Your task to perform on an android device: toggle wifi Image 0: 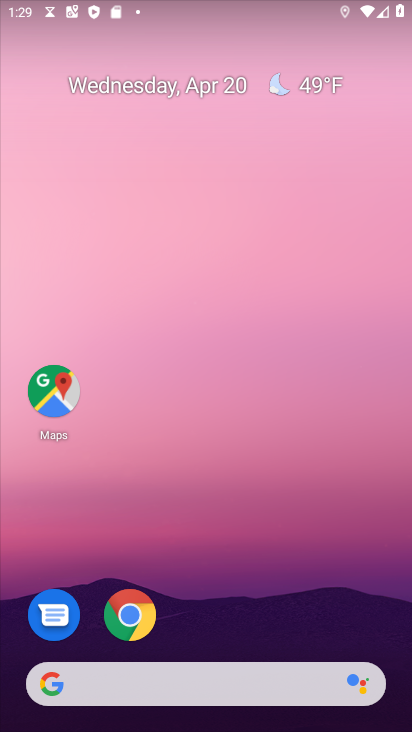
Step 0: drag from (369, 40) to (345, 390)
Your task to perform on an android device: toggle wifi Image 1: 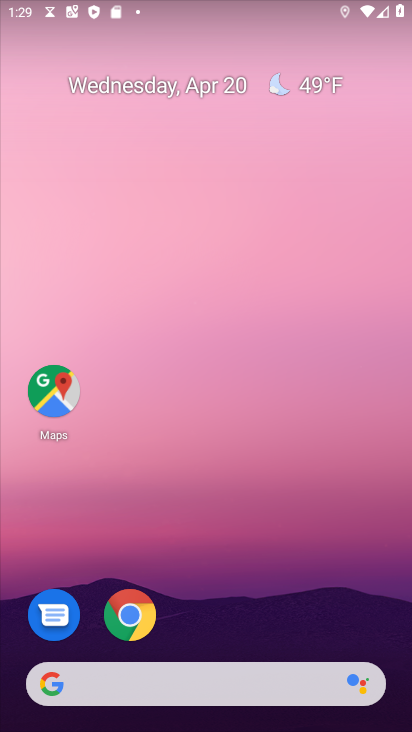
Step 1: click (187, 46)
Your task to perform on an android device: toggle wifi Image 2: 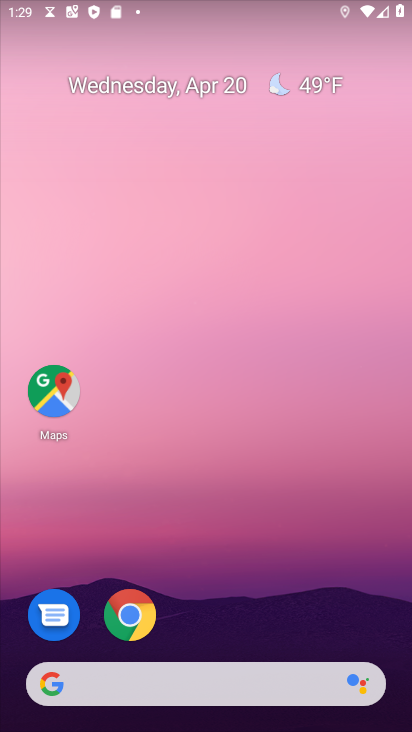
Step 2: drag from (409, 202) to (315, 309)
Your task to perform on an android device: toggle wifi Image 3: 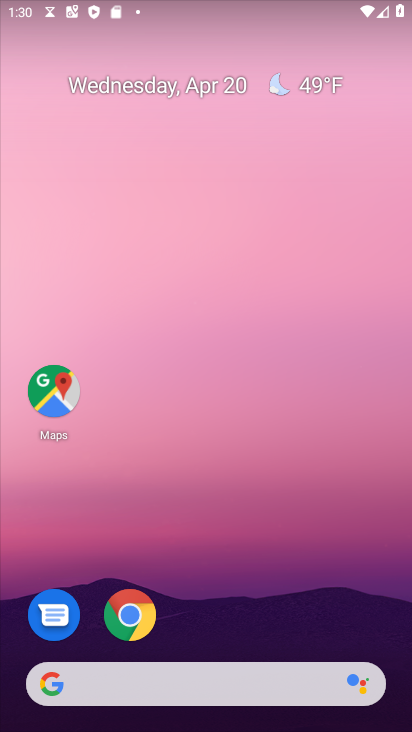
Step 3: drag from (203, 8) to (200, 287)
Your task to perform on an android device: toggle wifi Image 4: 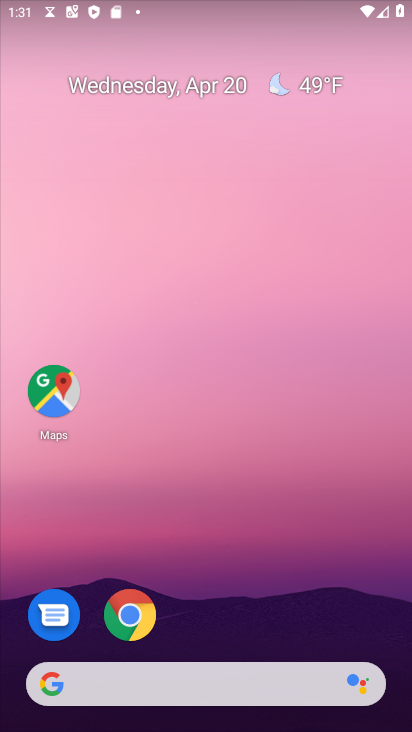
Step 4: drag from (48, 3) to (51, 335)
Your task to perform on an android device: toggle wifi Image 5: 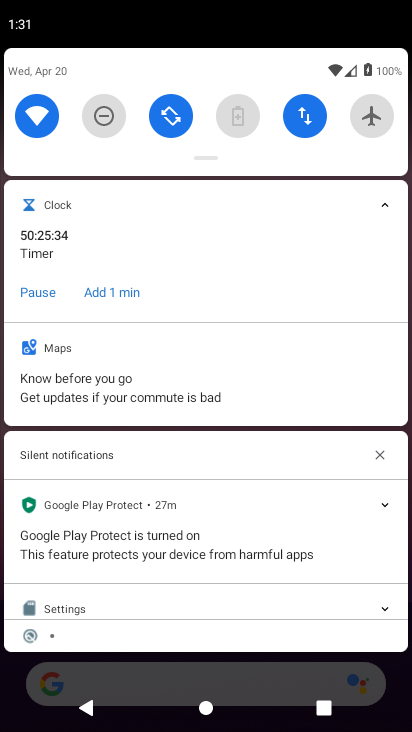
Step 5: click (42, 113)
Your task to perform on an android device: toggle wifi Image 6: 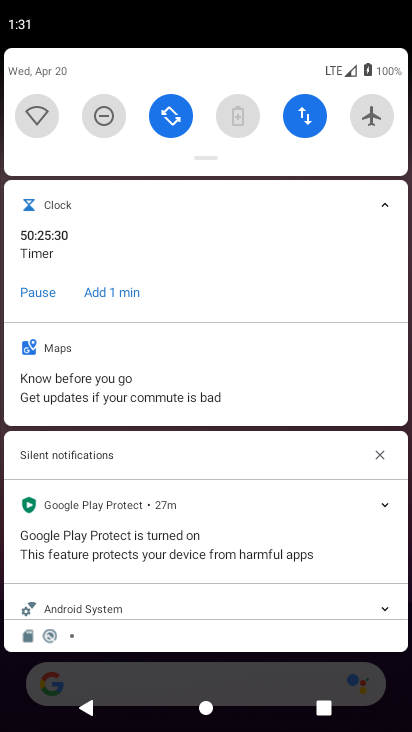
Step 6: task complete